Your task to perform on an android device: Do I have any events today? Image 0: 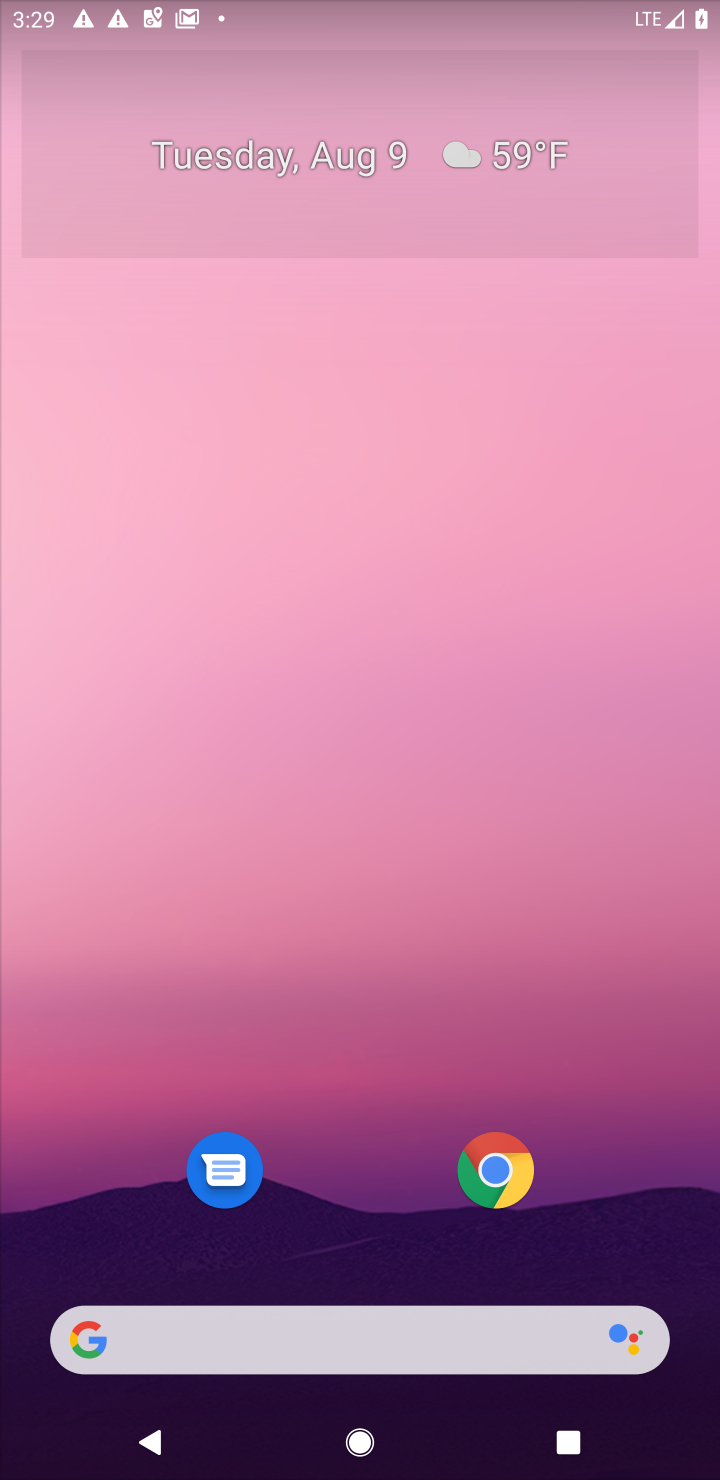
Step 0: press home button
Your task to perform on an android device: Do I have any events today? Image 1: 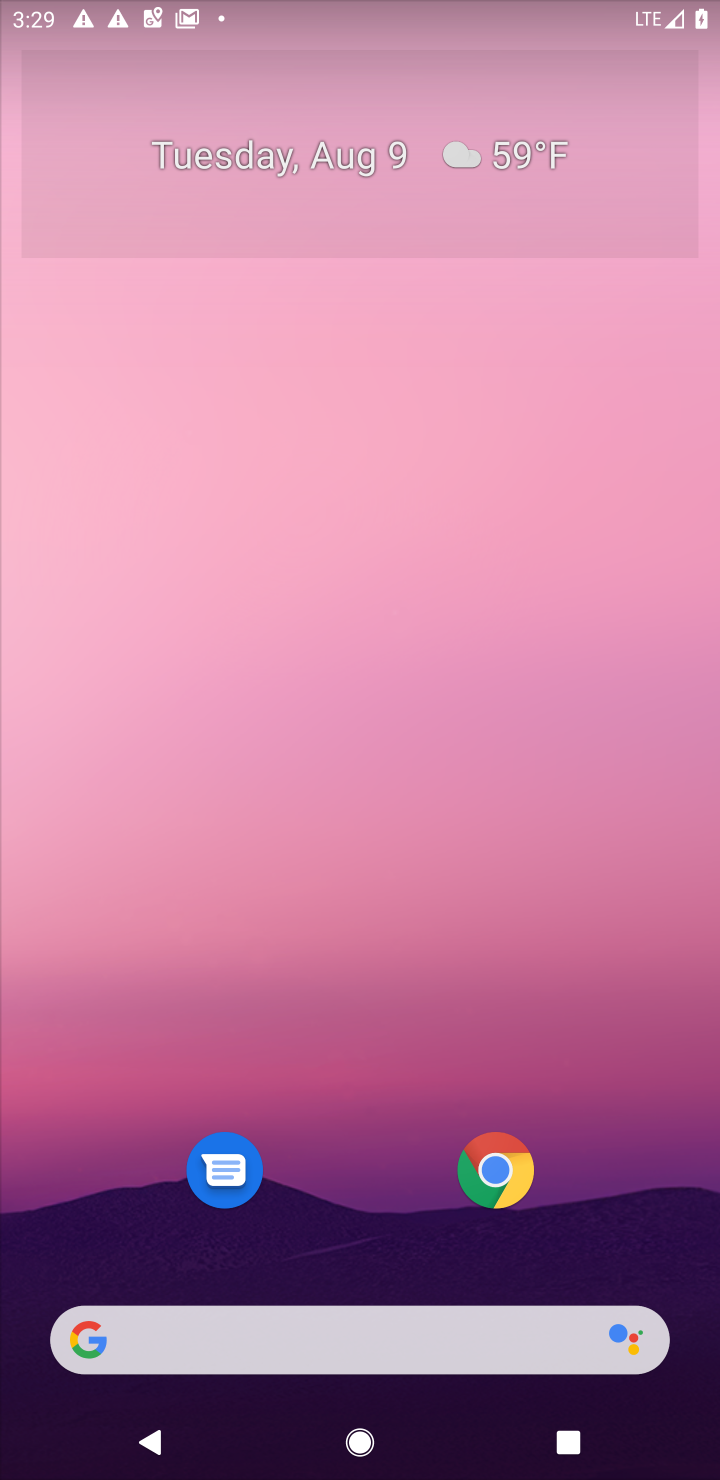
Step 1: press home button
Your task to perform on an android device: Do I have any events today? Image 2: 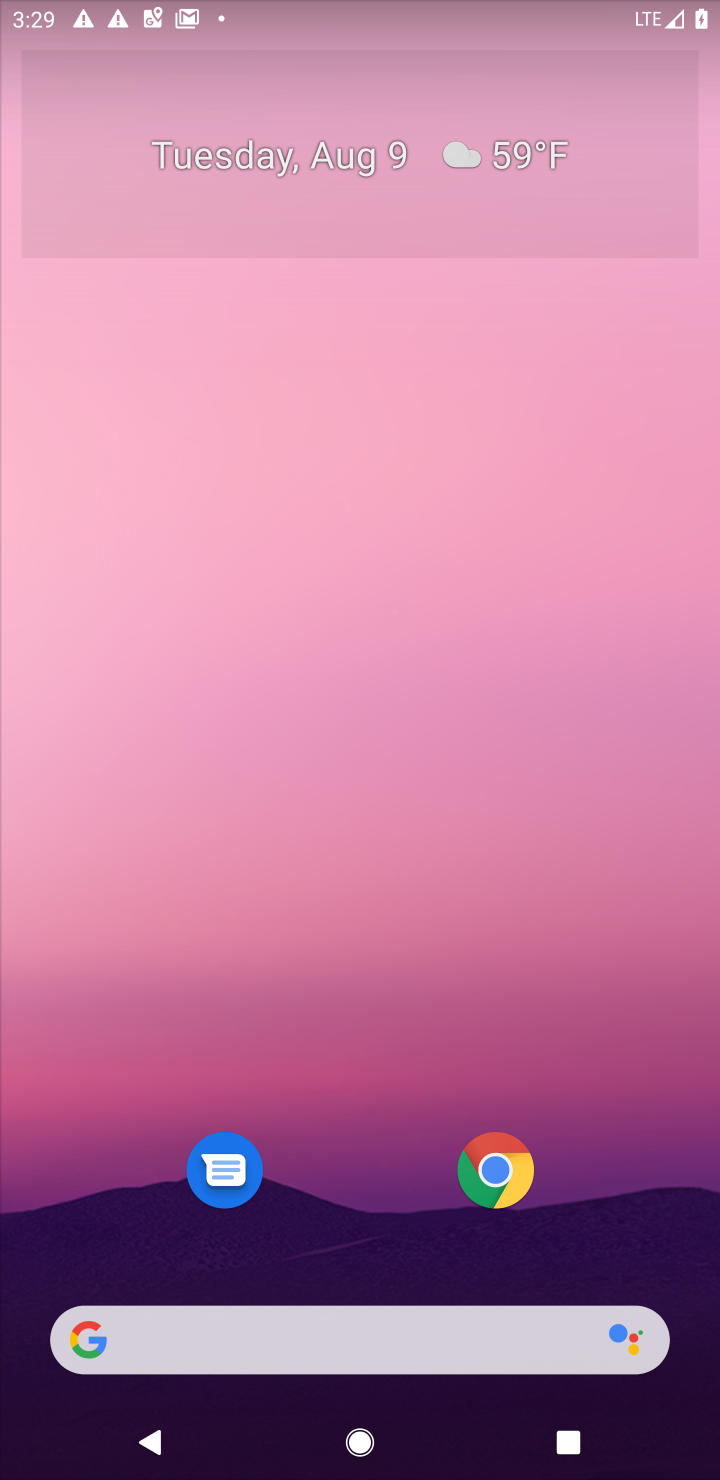
Step 2: drag from (384, 1247) to (480, 13)
Your task to perform on an android device: Do I have any events today? Image 3: 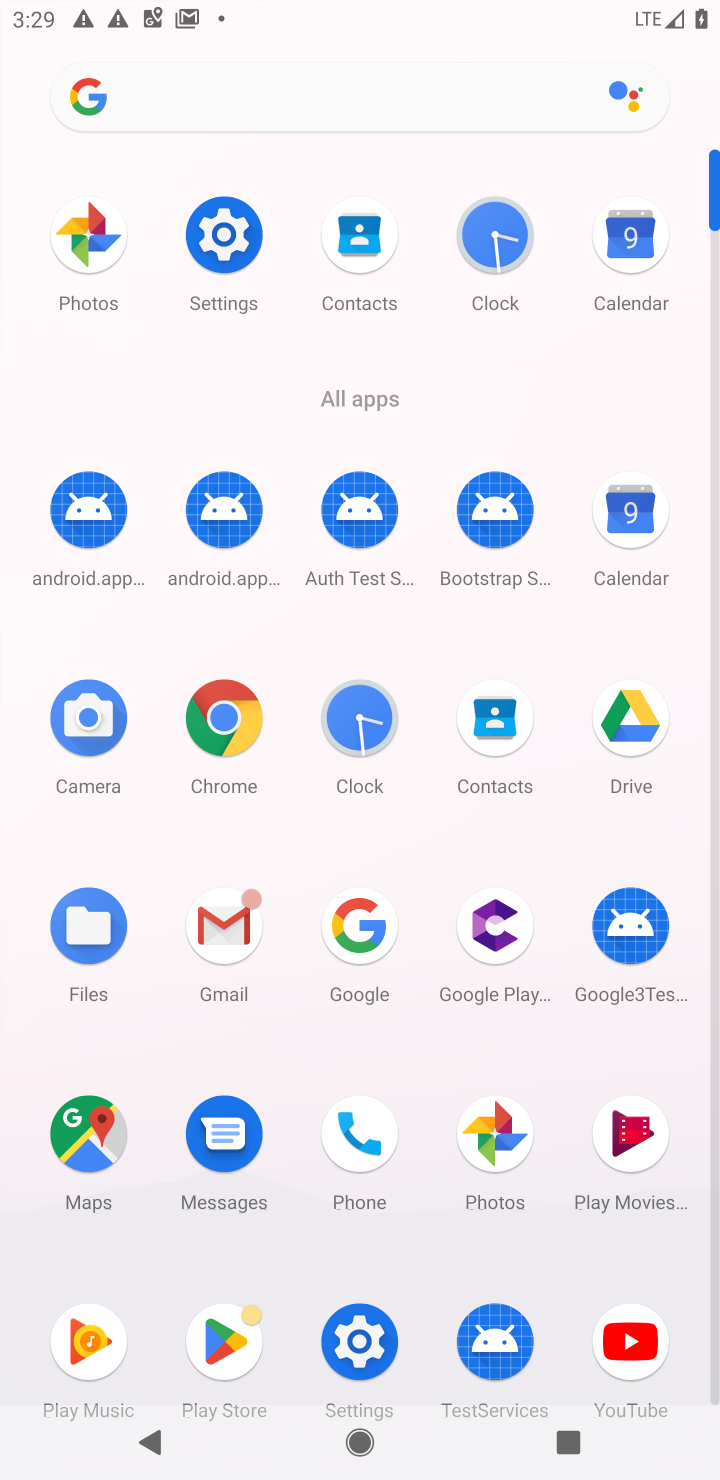
Step 3: click (632, 518)
Your task to perform on an android device: Do I have any events today? Image 4: 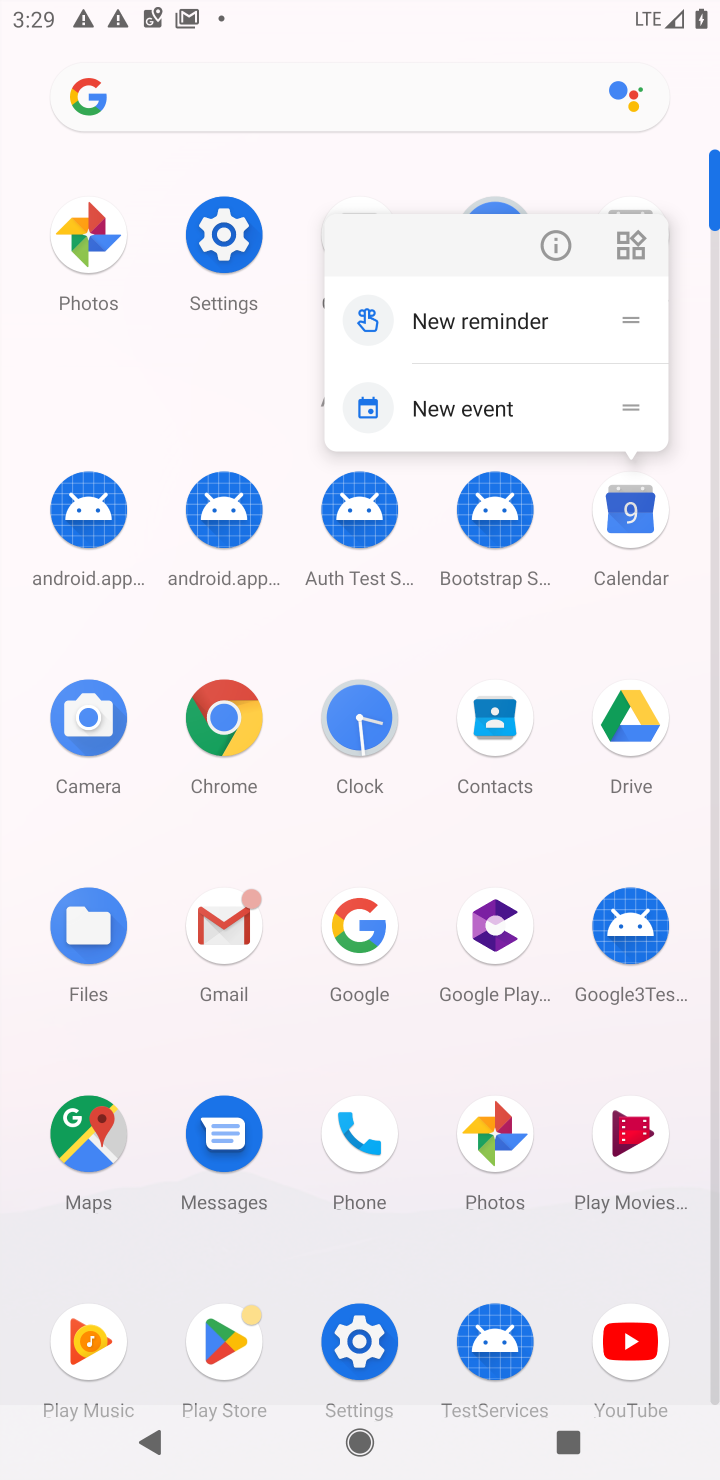
Step 4: click (632, 518)
Your task to perform on an android device: Do I have any events today? Image 5: 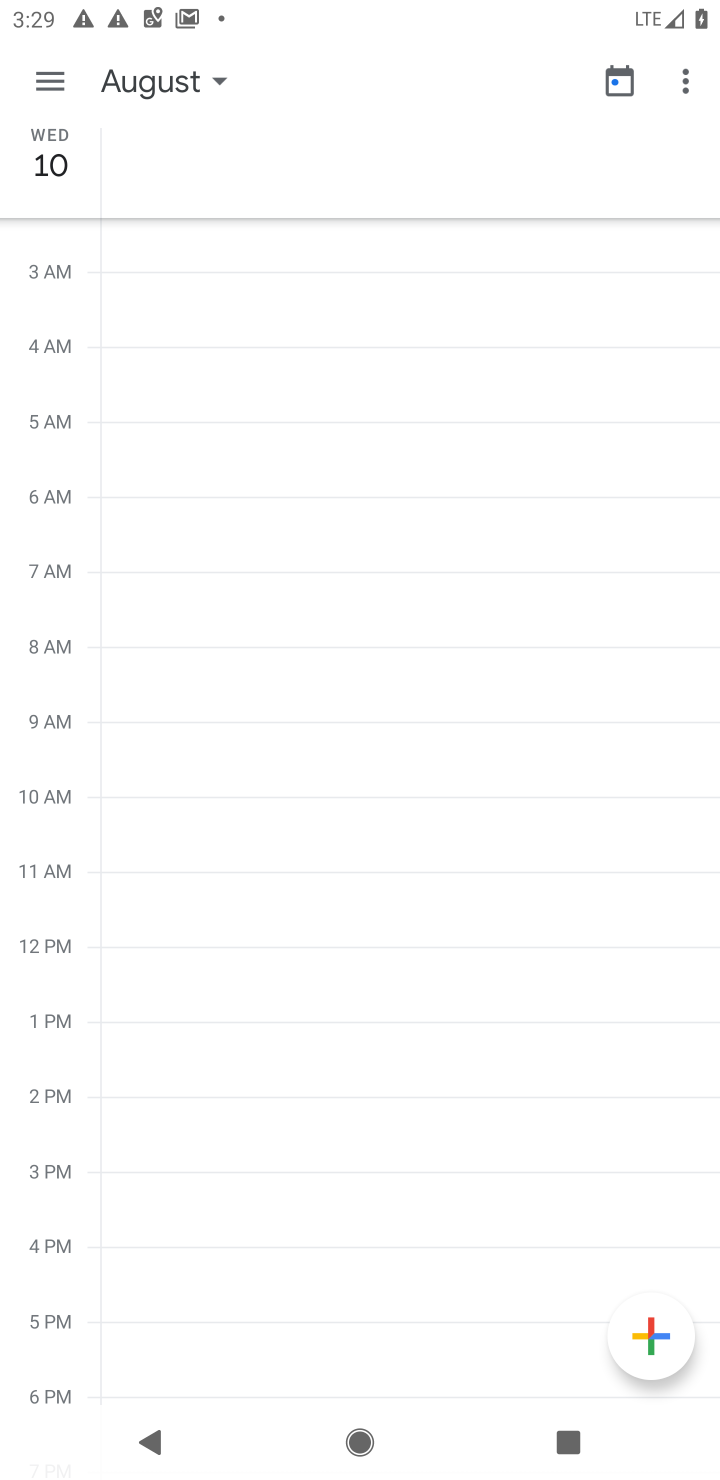
Step 5: click (201, 81)
Your task to perform on an android device: Do I have any events today? Image 6: 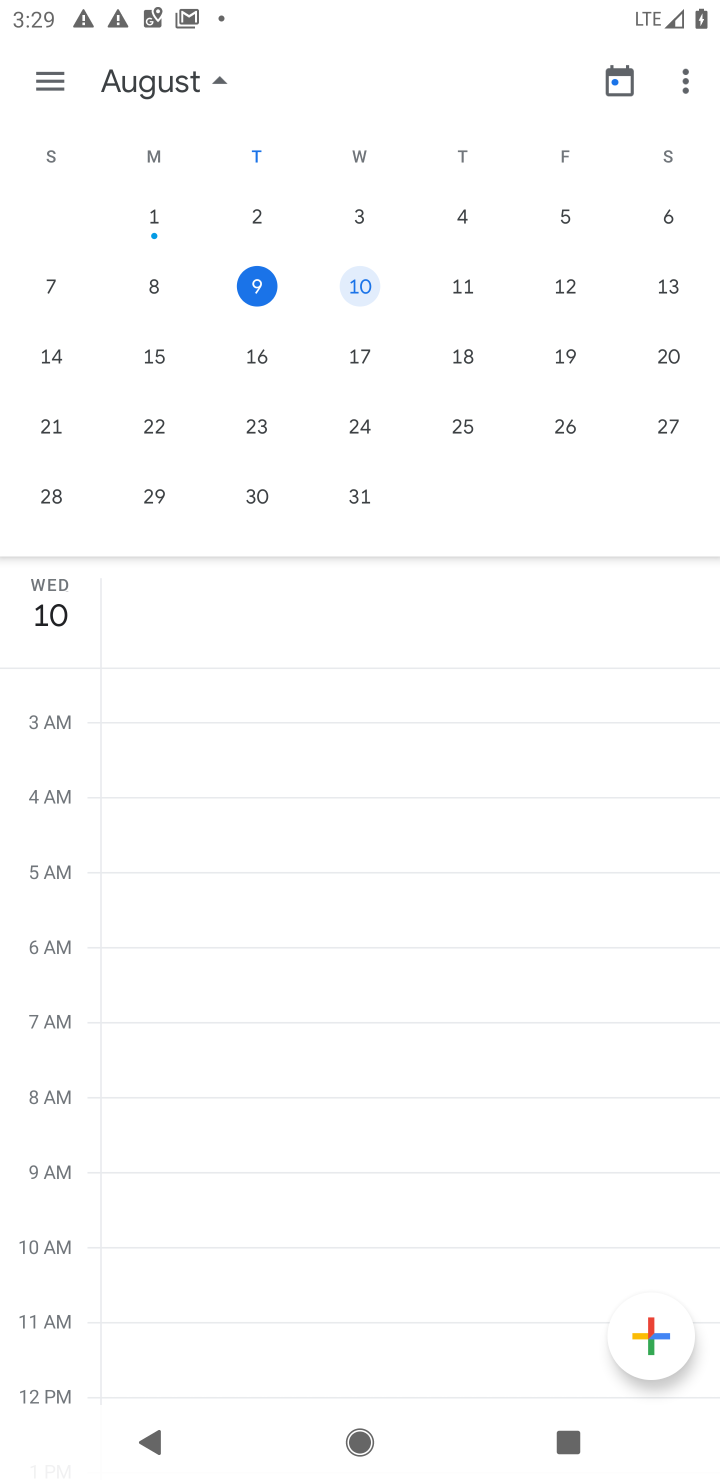
Step 6: click (270, 287)
Your task to perform on an android device: Do I have any events today? Image 7: 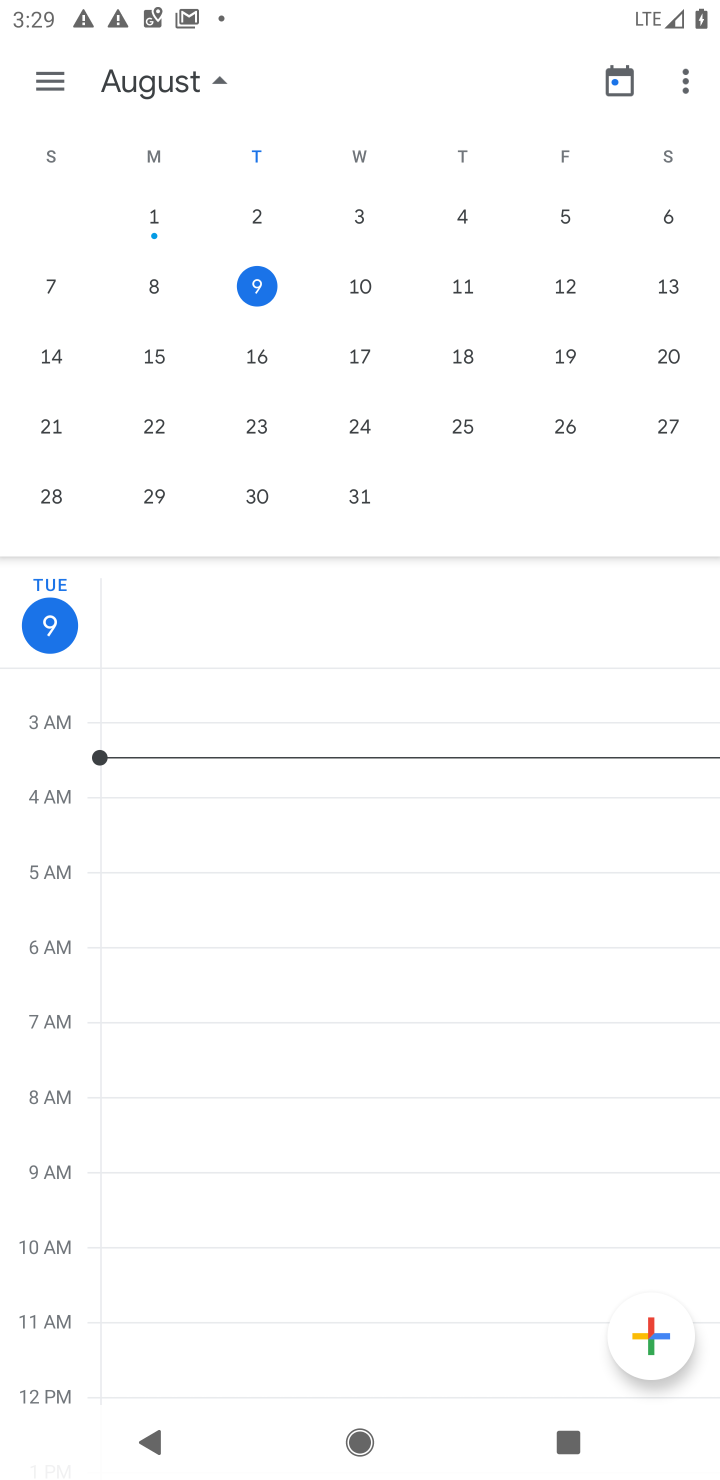
Step 7: task complete